Your task to perform on an android device: install app "Google Home" Image 0: 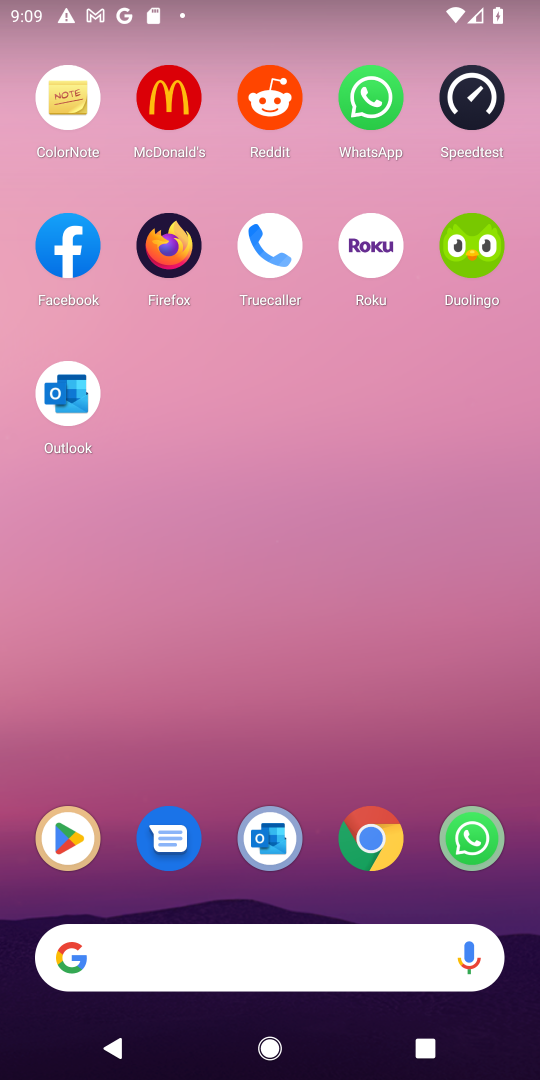
Step 0: press home button
Your task to perform on an android device: install app "Google Home" Image 1: 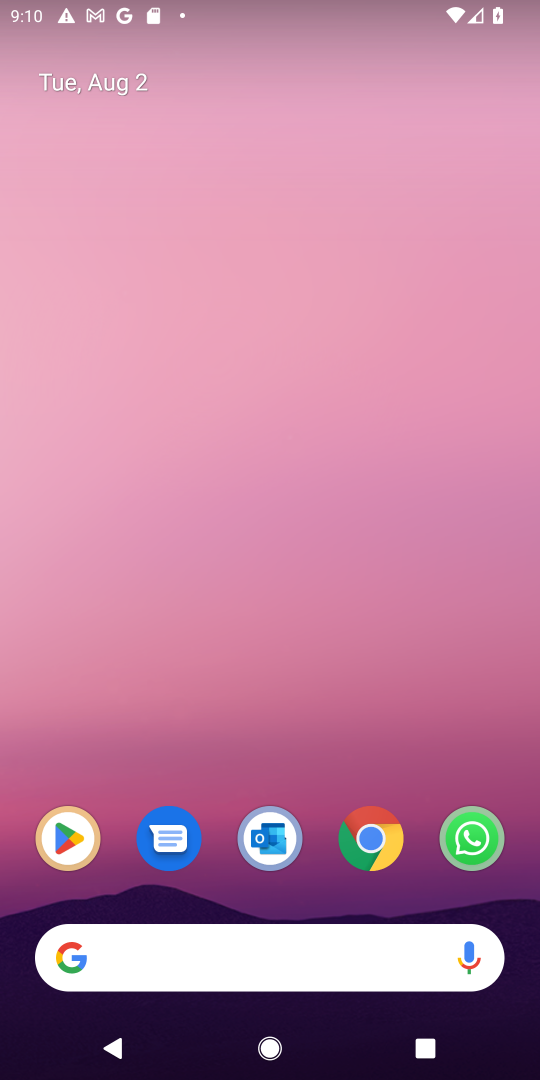
Step 1: drag from (311, 744) to (306, 21)
Your task to perform on an android device: install app "Google Home" Image 2: 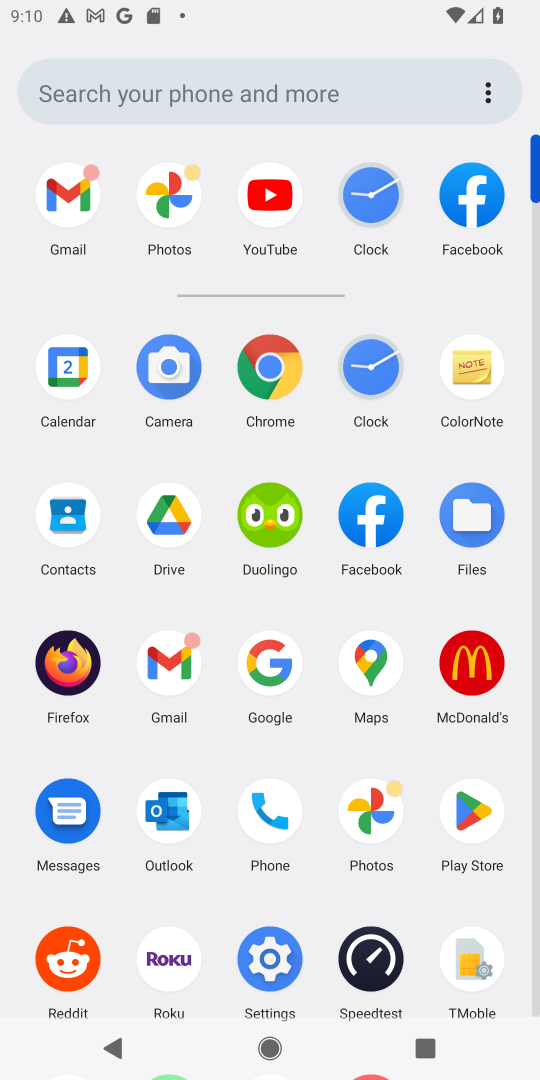
Step 2: click (471, 816)
Your task to perform on an android device: install app "Google Home" Image 3: 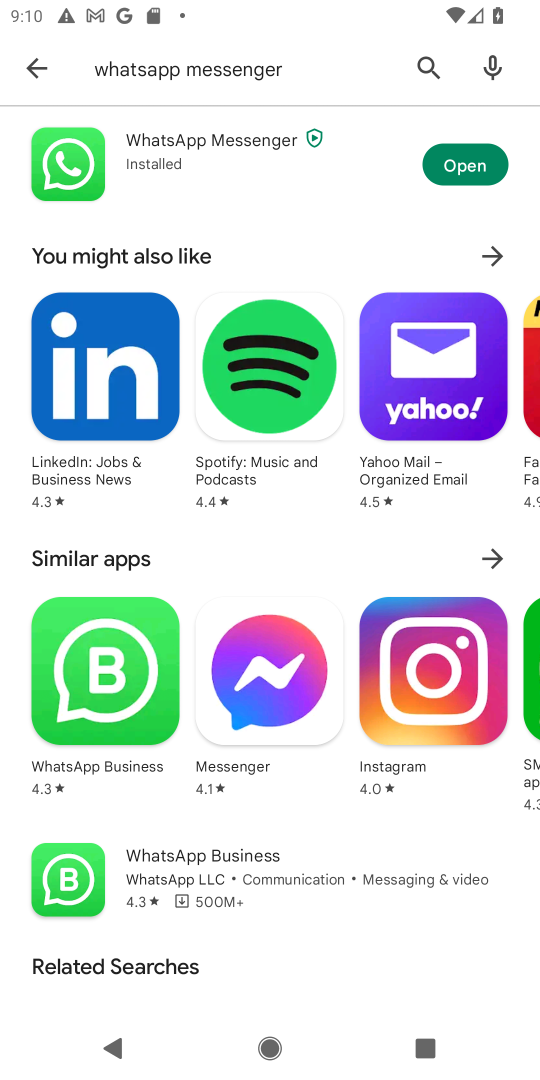
Step 3: click (430, 59)
Your task to perform on an android device: install app "Google Home" Image 4: 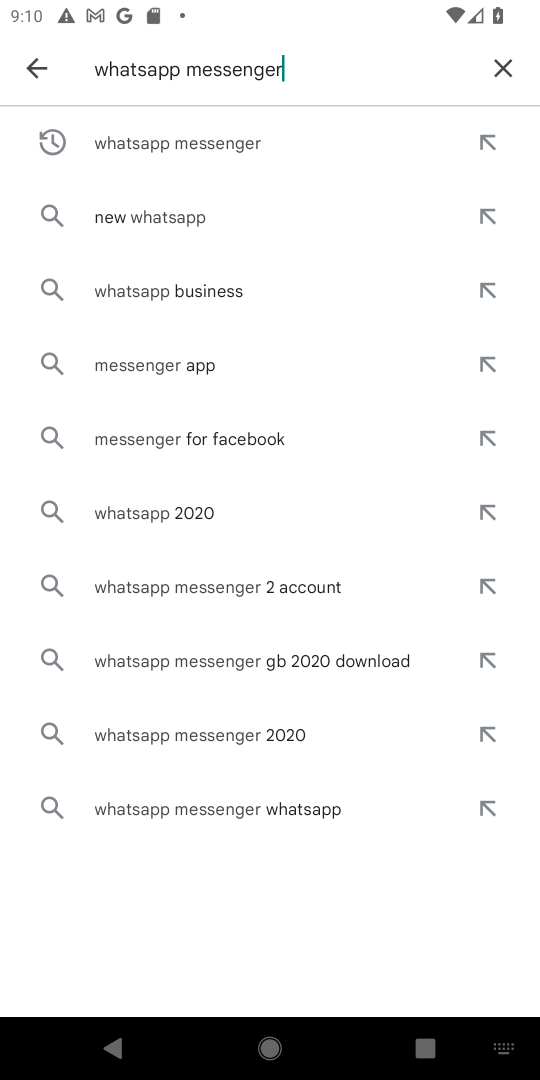
Step 4: click (513, 74)
Your task to perform on an android device: install app "Google Home" Image 5: 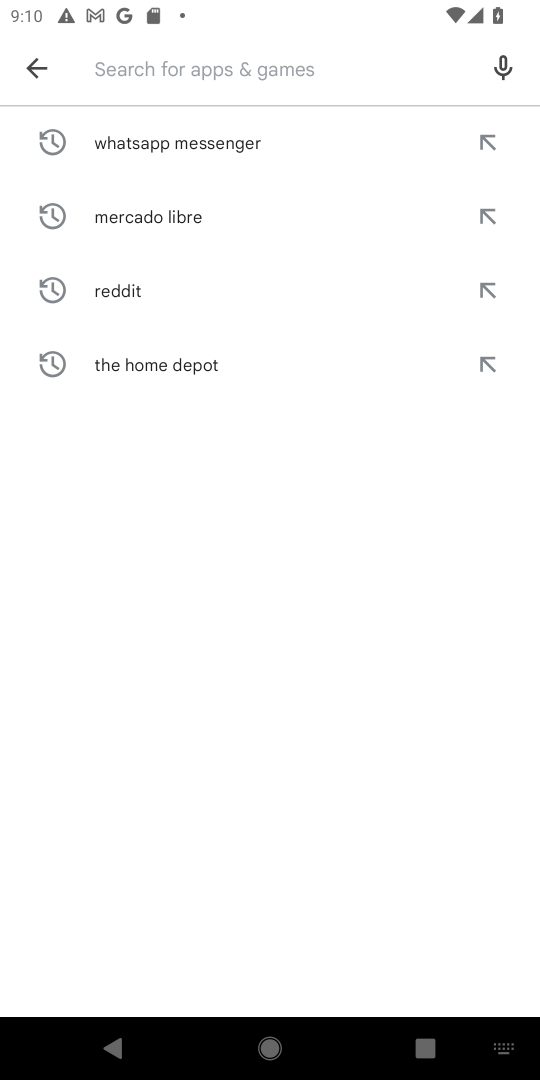
Step 5: click (349, 89)
Your task to perform on an android device: install app "Google Home" Image 6: 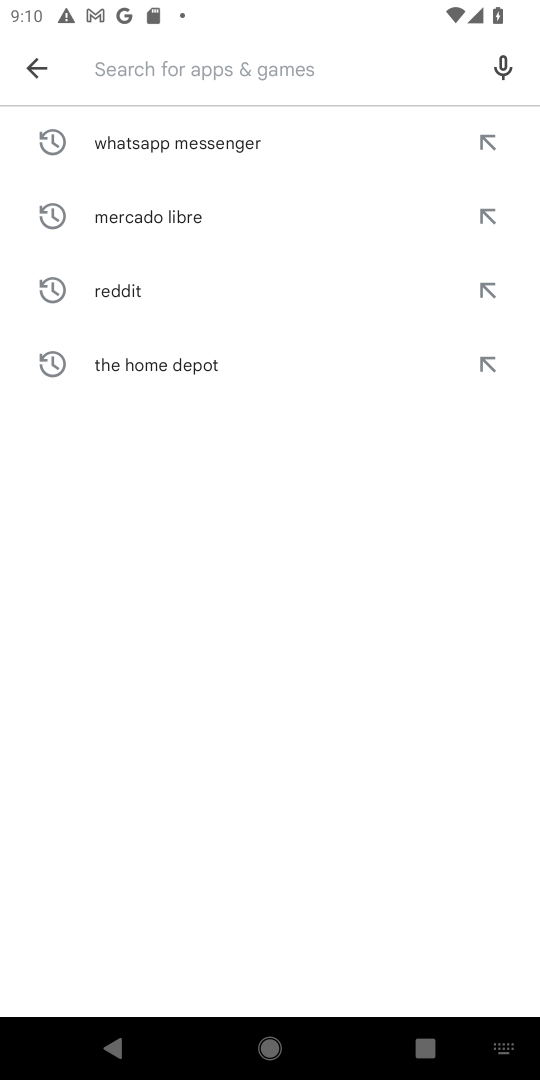
Step 6: click (274, 70)
Your task to perform on an android device: install app "Google Home" Image 7: 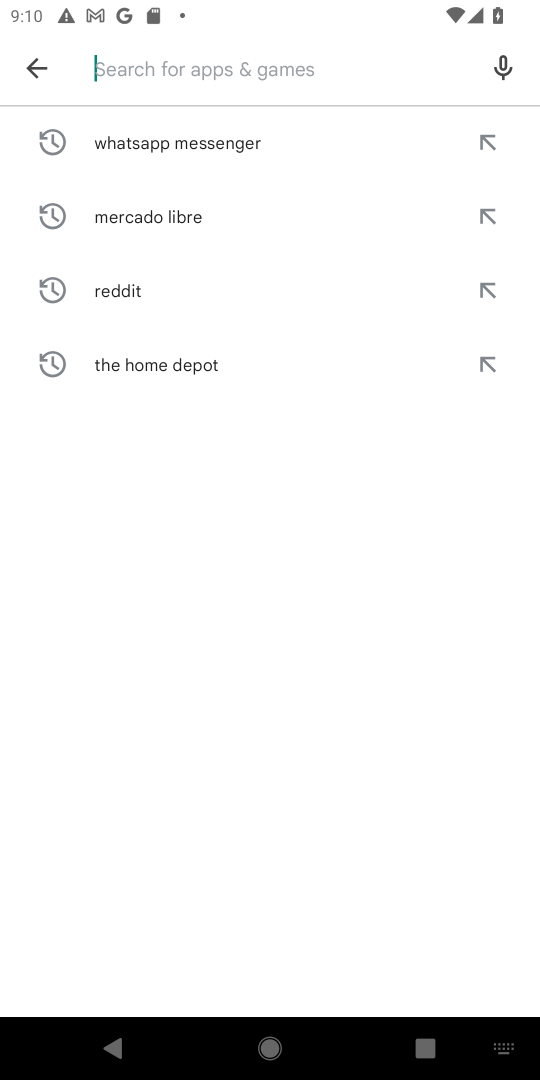
Step 7: type "google home"
Your task to perform on an android device: install app "Google Home" Image 8: 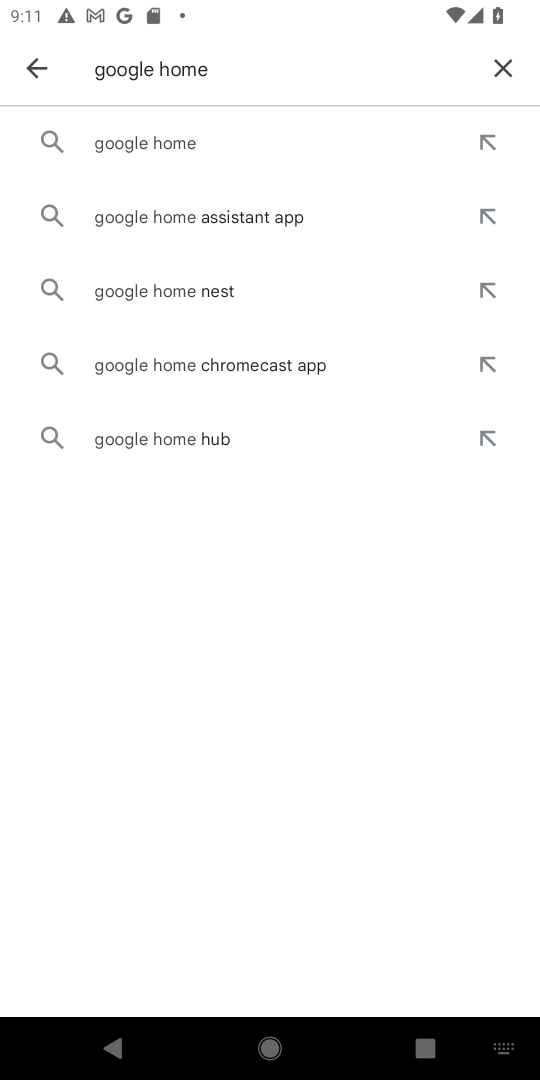
Step 8: click (212, 140)
Your task to perform on an android device: install app "Google Home" Image 9: 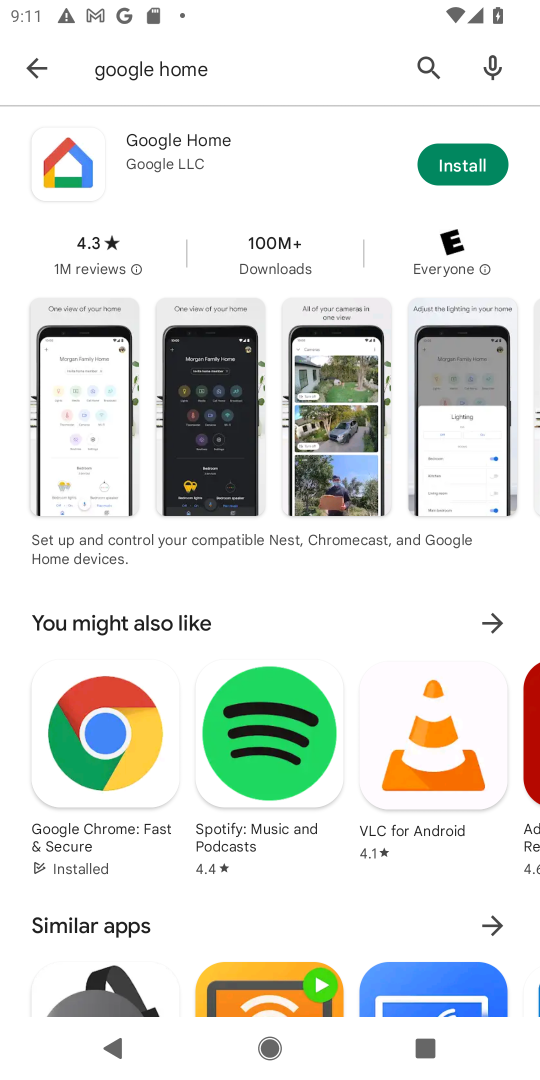
Step 9: click (457, 161)
Your task to perform on an android device: install app "Google Home" Image 10: 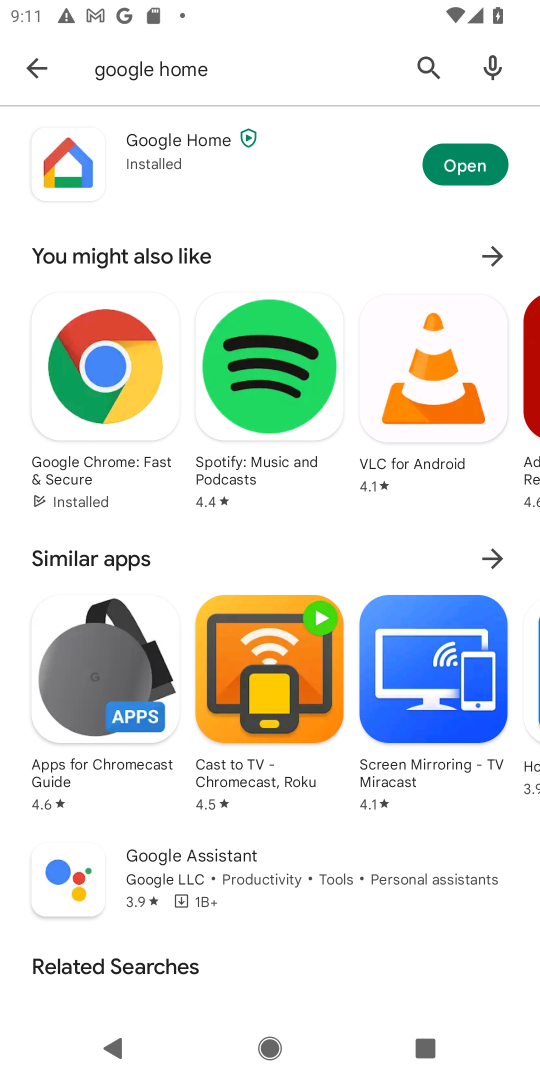
Step 10: task complete